Your task to perform on an android device: Open Maps and search for coffee Image 0: 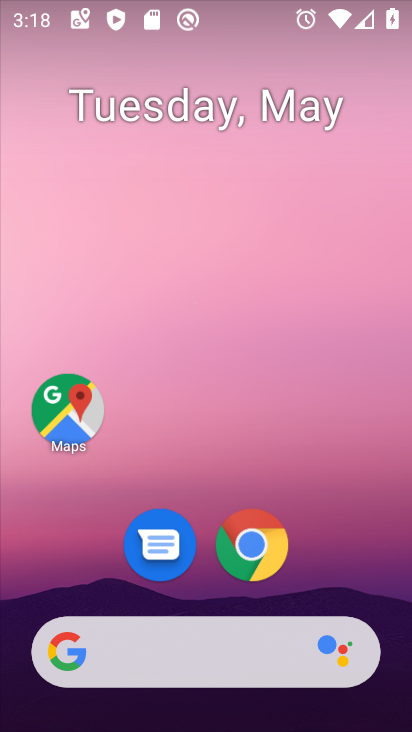
Step 0: click (81, 418)
Your task to perform on an android device: Open Maps and search for coffee Image 1: 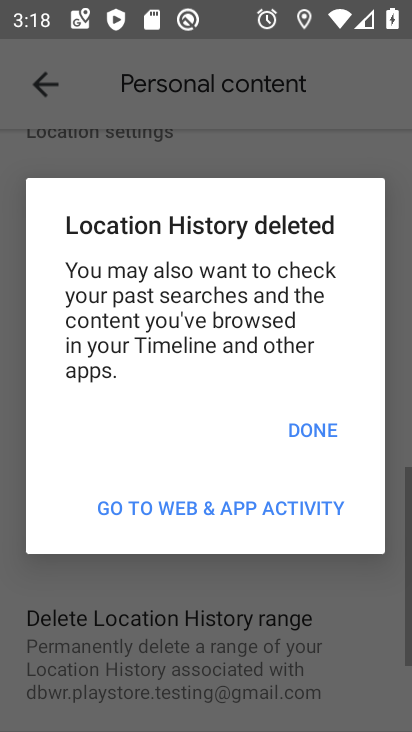
Step 1: press home button
Your task to perform on an android device: Open Maps and search for coffee Image 2: 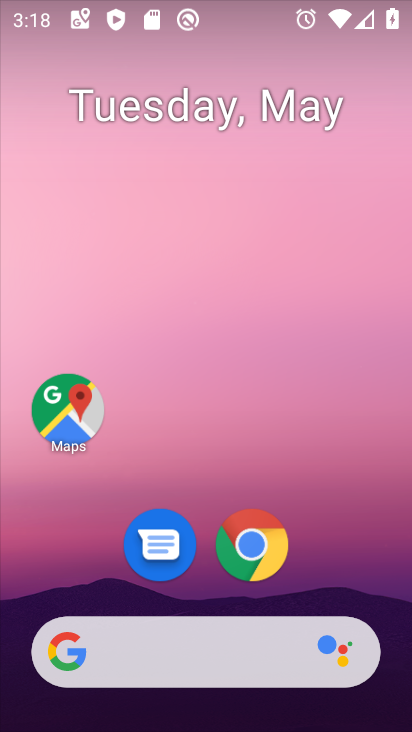
Step 2: click (89, 425)
Your task to perform on an android device: Open Maps and search for coffee Image 3: 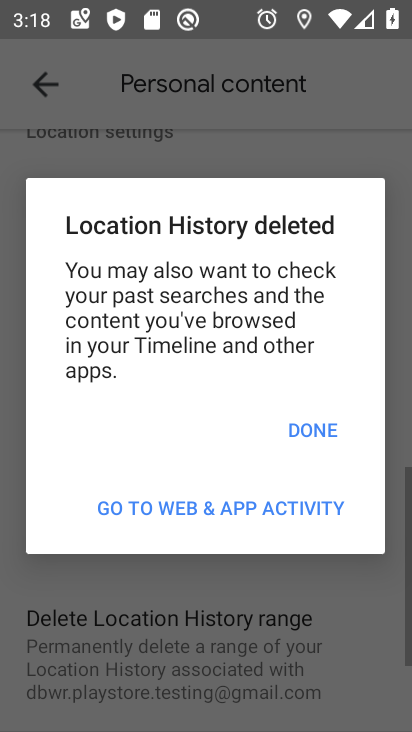
Step 3: click (321, 422)
Your task to perform on an android device: Open Maps and search for coffee Image 4: 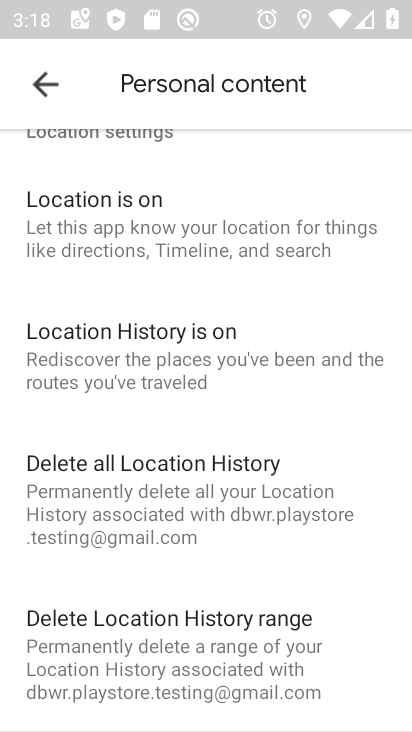
Step 4: click (56, 121)
Your task to perform on an android device: Open Maps and search for coffee Image 5: 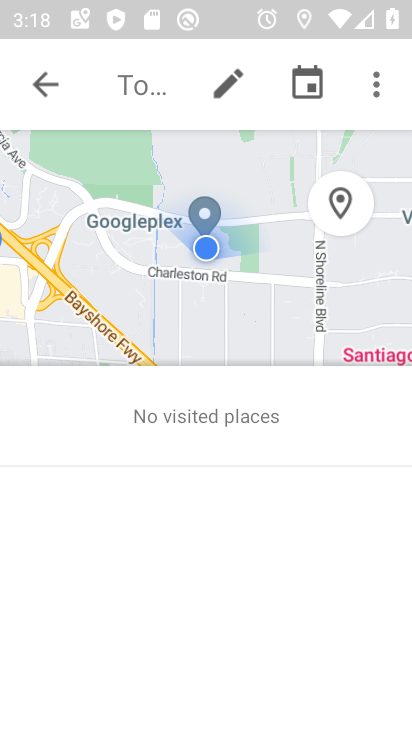
Step 5: click (32, 86)
Your task to perform on an android device: Open Maps and search for coffee Image 6: 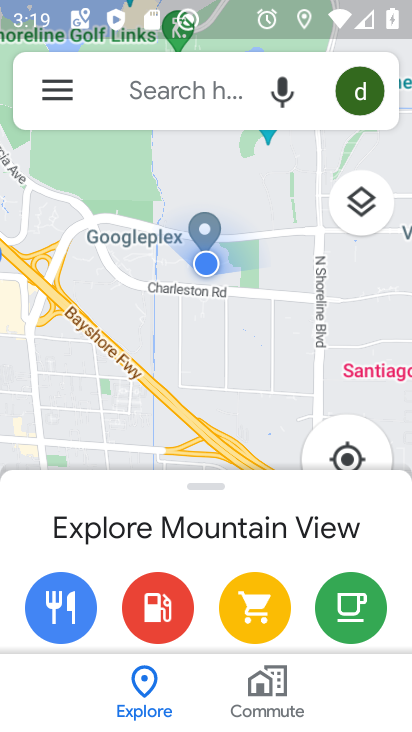
Step 6: click (160, 95)
Your task to perform on an android device: Open Maps and search for coffee Image 7: 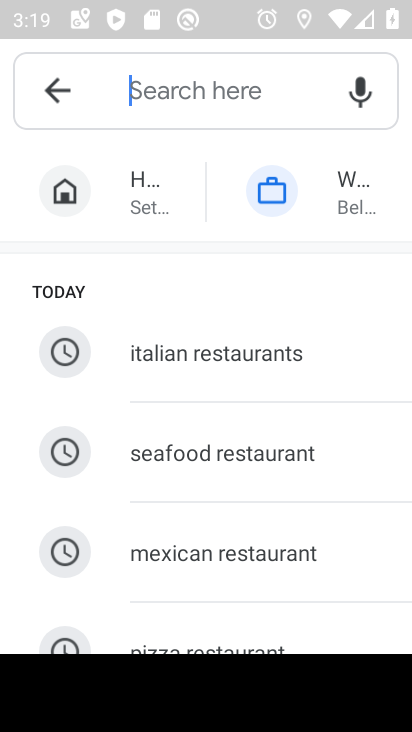
Step 7: type "coffee"
Your task to perform on an android device: Open Maps and search for coffee Image 8: 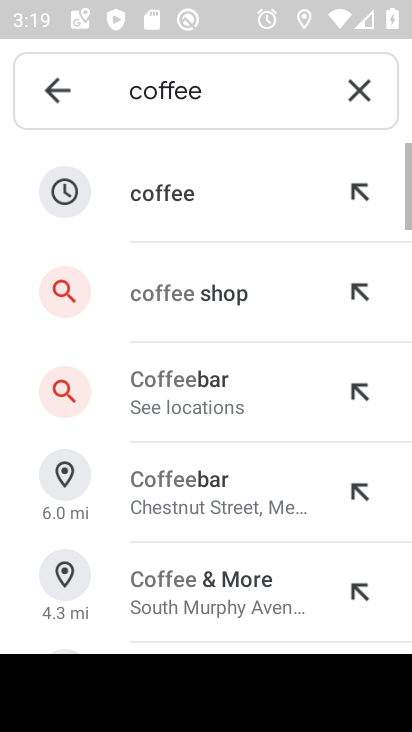
Step 8: click (129, 198)
Your task to perform on an android device: Open Maps and search for coffee Image 9: 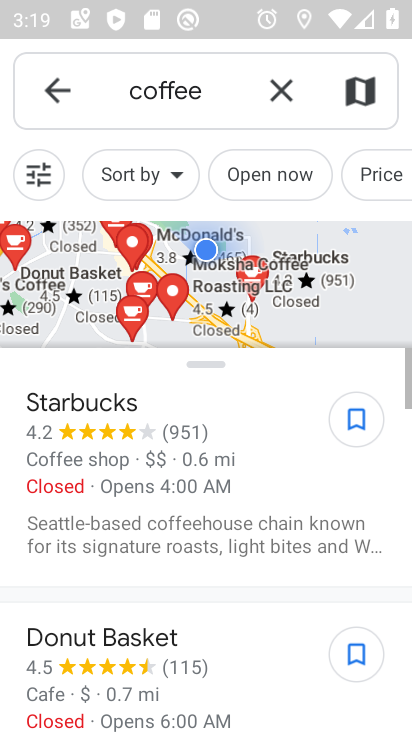
Step 9: task complete